Your task to perform on an android device: Go to privacy settings Image 0: 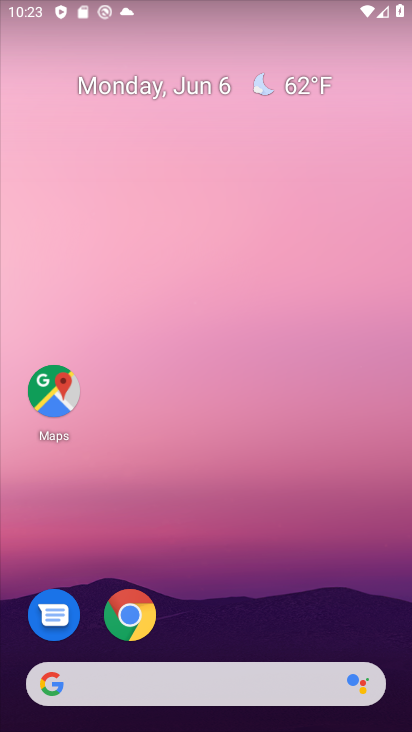
Step 0: drag from (245, 686) to (226, 0)
Your task to perform on an android device: Go to privacy settings Image 1: 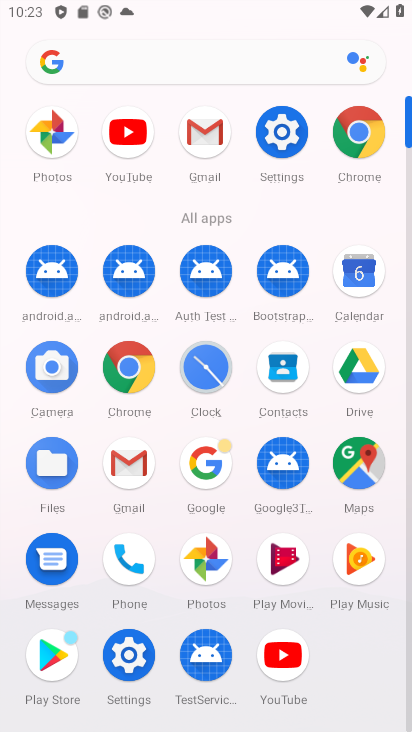
Step 1: click (297, 163)
Your task to perform on an android device: Go to privacy settings Image 2: 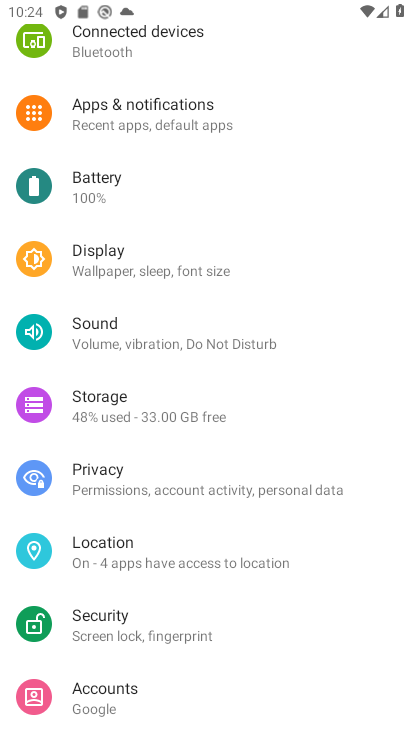
Step 2: click (99, 486)
Your task to perform on an android device: Go to privacy settings Image 3: 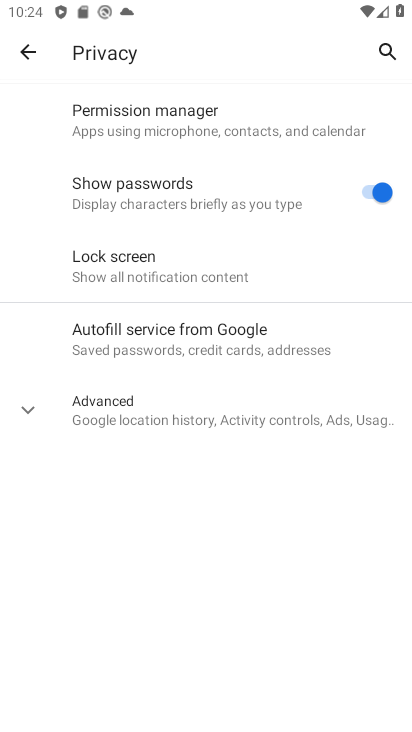
Step 3: task complete